Your task to perform on an android device: remove spam from my inbox in the gmail app Image 0: 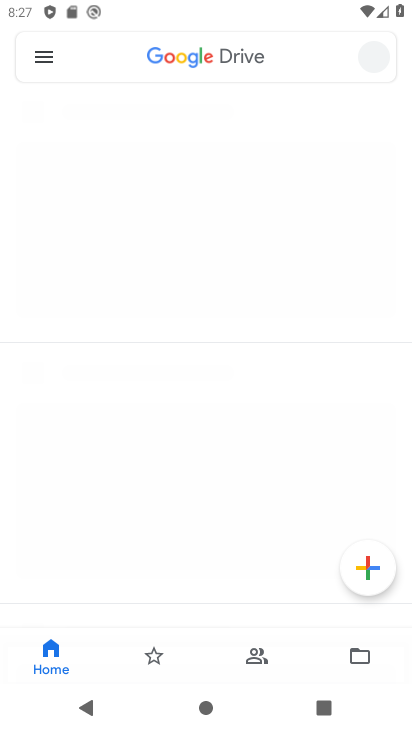
Step 0: click (217, 583)
Your task to perform on an android device: remove spam from my inbox in the gmail app Image 1: 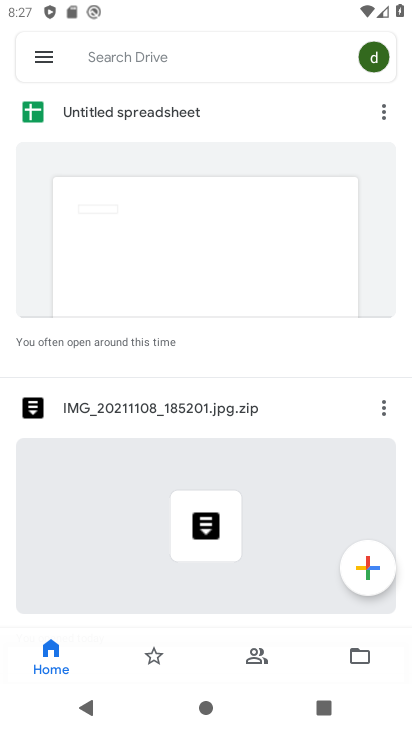
Step 1: press home button
Your task to perform on an android device: remove spam from my inbox in the gmail app Image 2: 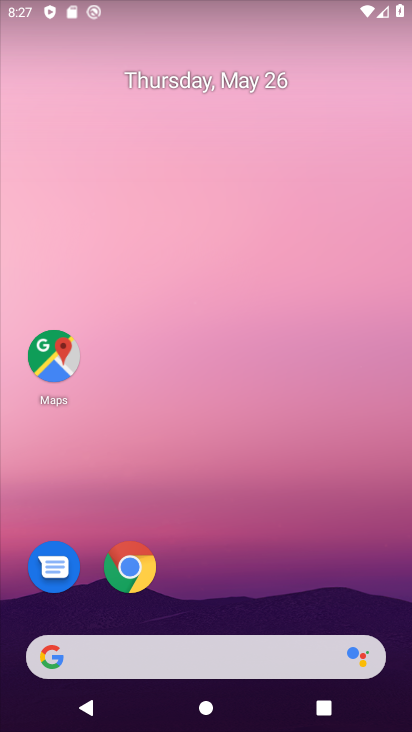
Step 2: drag from (245, 589) to (267, 6)
Your task to perform on an android device: remove spam from my inbox in the gmail app Image 3: 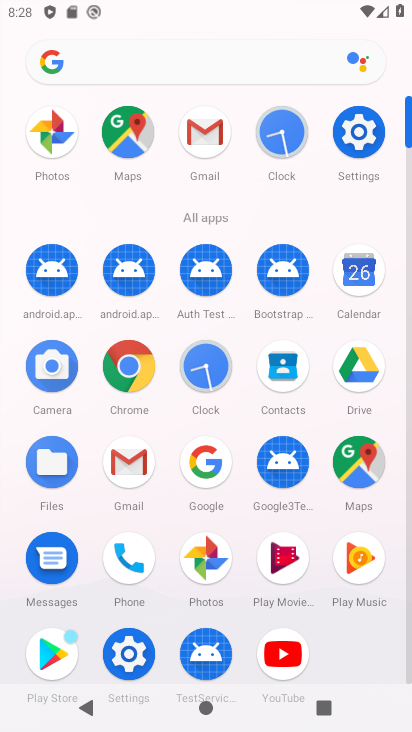
Step 3: click (207, 129)
Your task to perform on an android device: remove spam from my inbox in the gmail app Image 4: 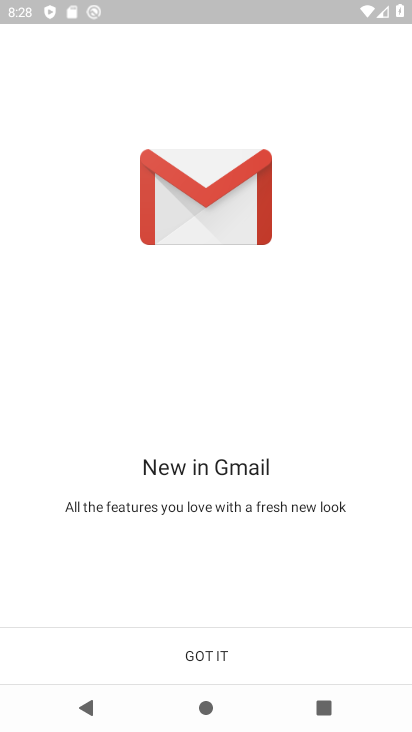
Step 4: click (216, 661)
Your task to perform on an android device: remove spam from my inbox in the gmail app Image 5: 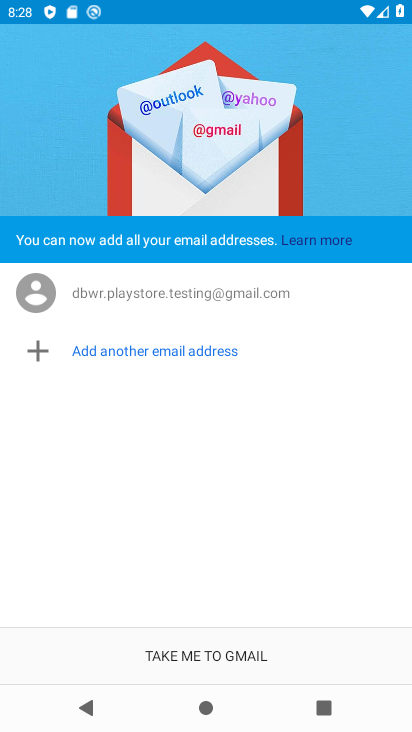
Step 5: click (227, 645)
Your task to perform on an android device: remove spam from my inbox in the gmail app Image 6: 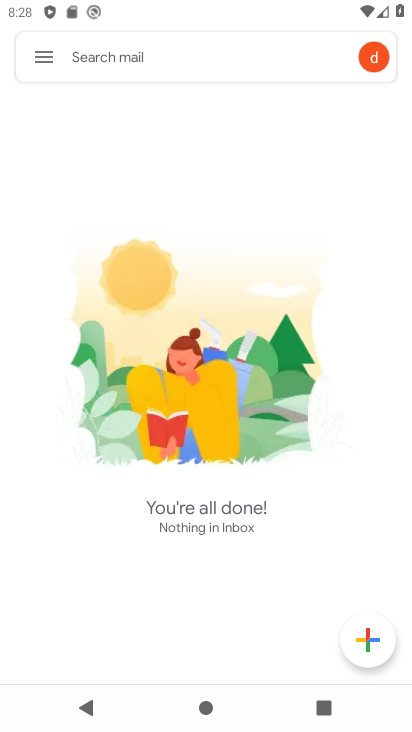
Step 6: click (44, 54)
Your task to perform on an android device: remove spam from my inbox in the gmail app Image 7: 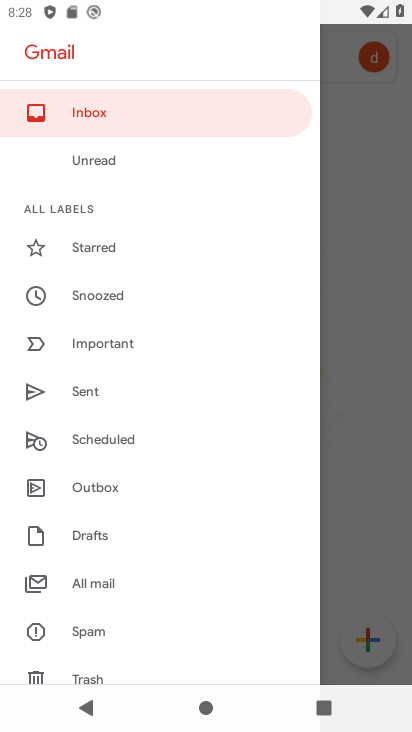
Step 7: click (94, 637)
Your task to perform on an android device: remove spam from my inbox in the gmail app Image 8: 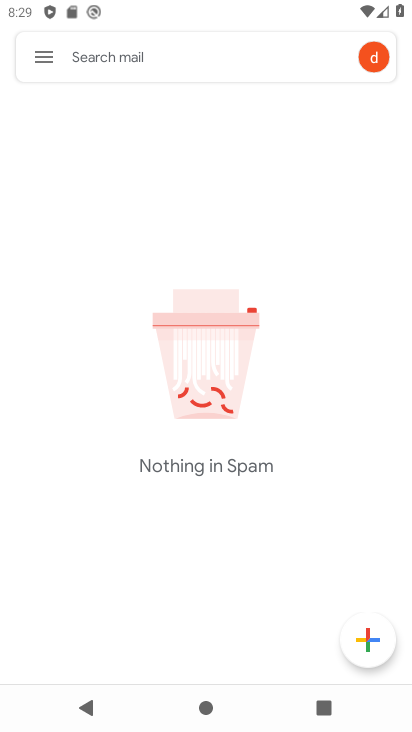
Step 8: task complete